Your task to perform on an android device: What's on my calendar tomorrow? Image 0: 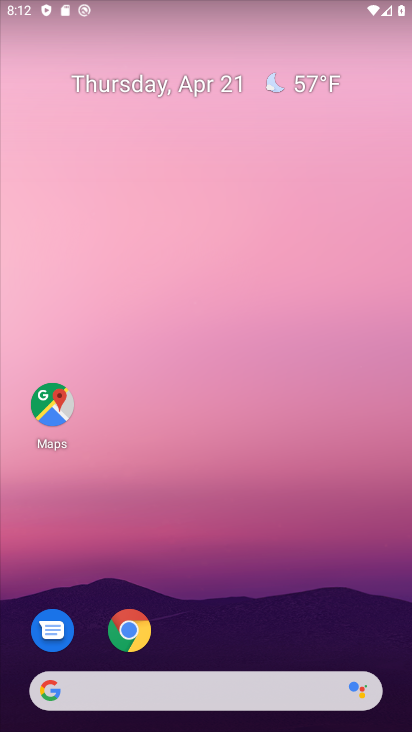
Step 0: drag from (302, 560) to (258, 208)
Your task to perform on an android device: What's on my calendar tomorrow? Image 1: 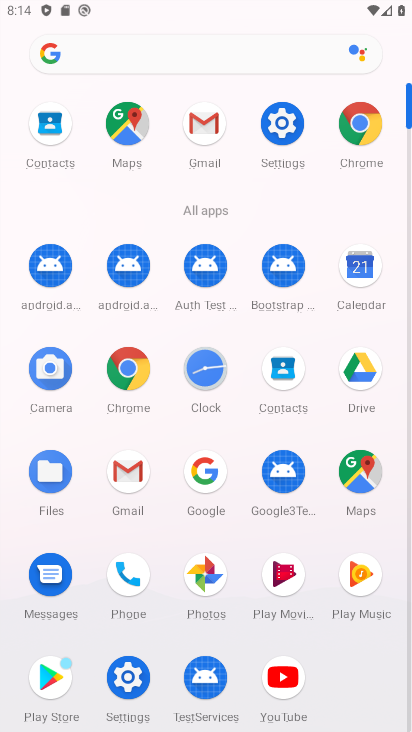
Step 1: press back button
Your task to perform on an android device: What's on my calendar tomorrow? Image 2: 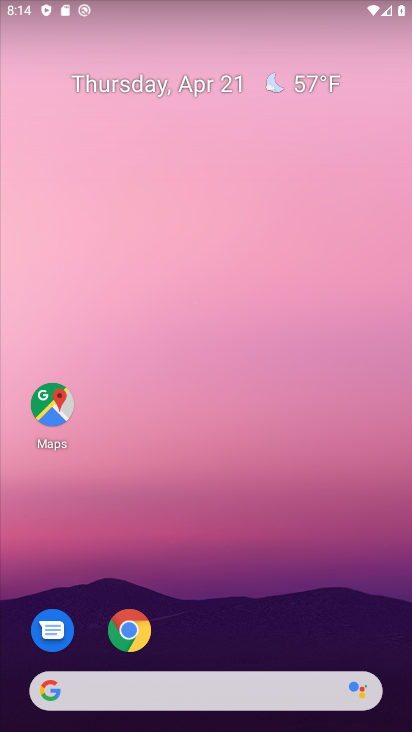
Step 2: drag from (270, 629) to (190, 24)
Your task to perform on an android device: What's on my calendar tomorrow? Image 3: 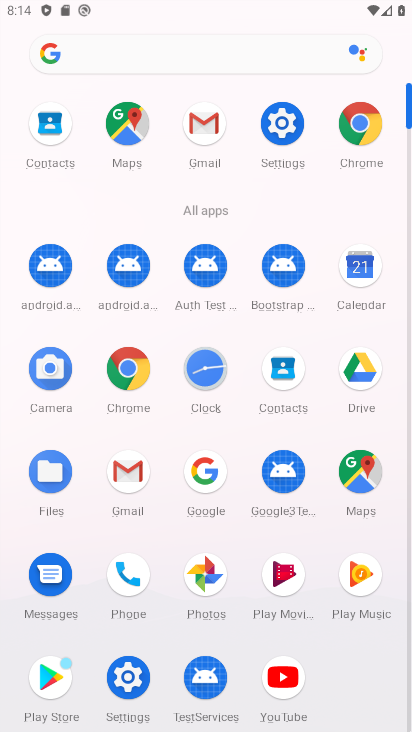
Step 3: click (369, 254)
Your task to perform on an android device: What's on my calendar tomorrow? Image 4: 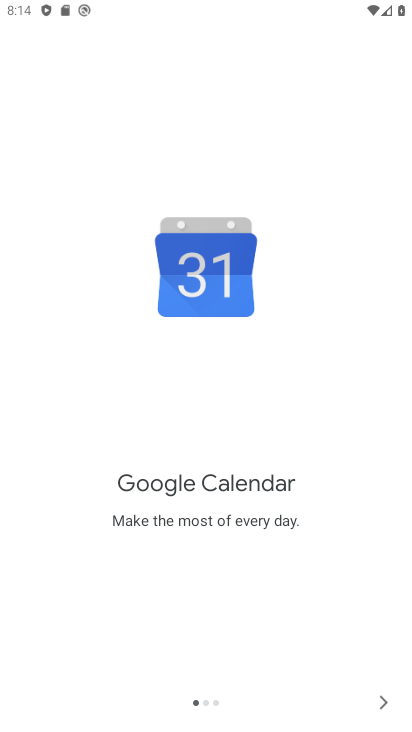
Step 4: click (384, 700)
Your task to perform on an android device: What's on my calendar tomorrow? Image 5: 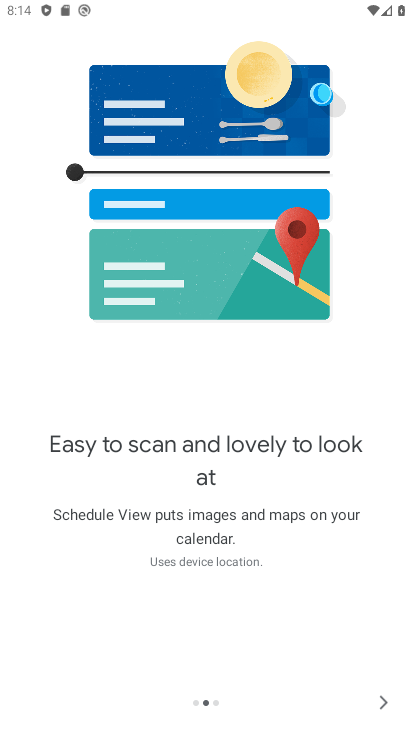
Step 5: click (384, 700)
Your task to perform on an android device: What's on my calendar tomorrow? Image 6: 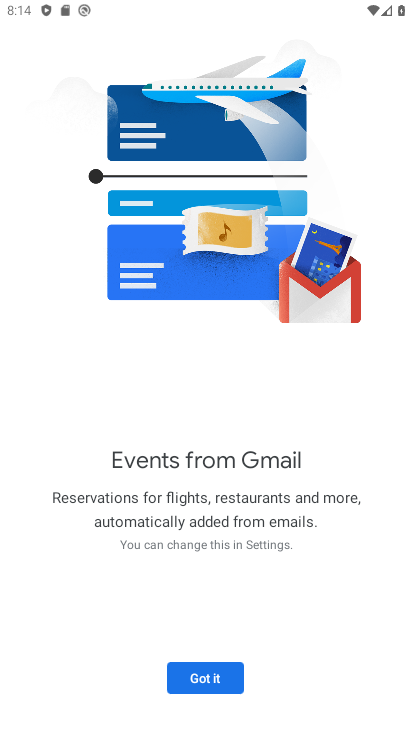
Step 6: click (209, 685)
Your task to perform on an android device: What's on my calendar tomorrow? Image 7: 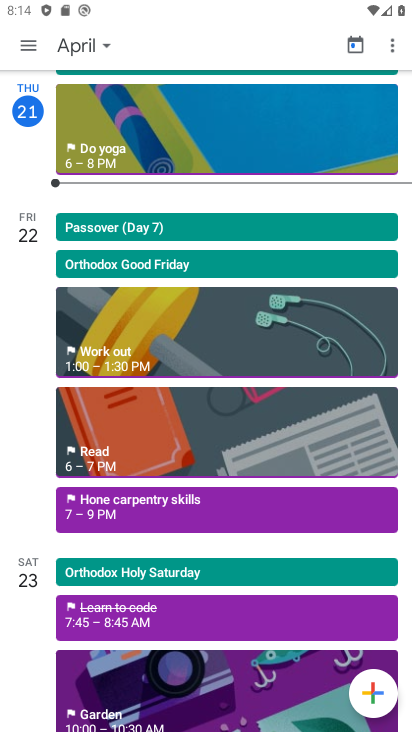
Step 7: click (25, 578)
Your task to perform on an android device: What's on my calendar tomorrow? Image 8: 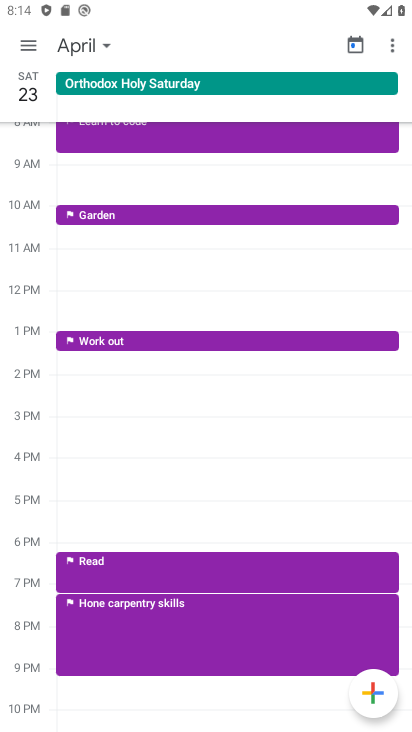
Step 8: task complete